Your task to perform on an android device: remove spam from my inbox in the gmail app Image 0: 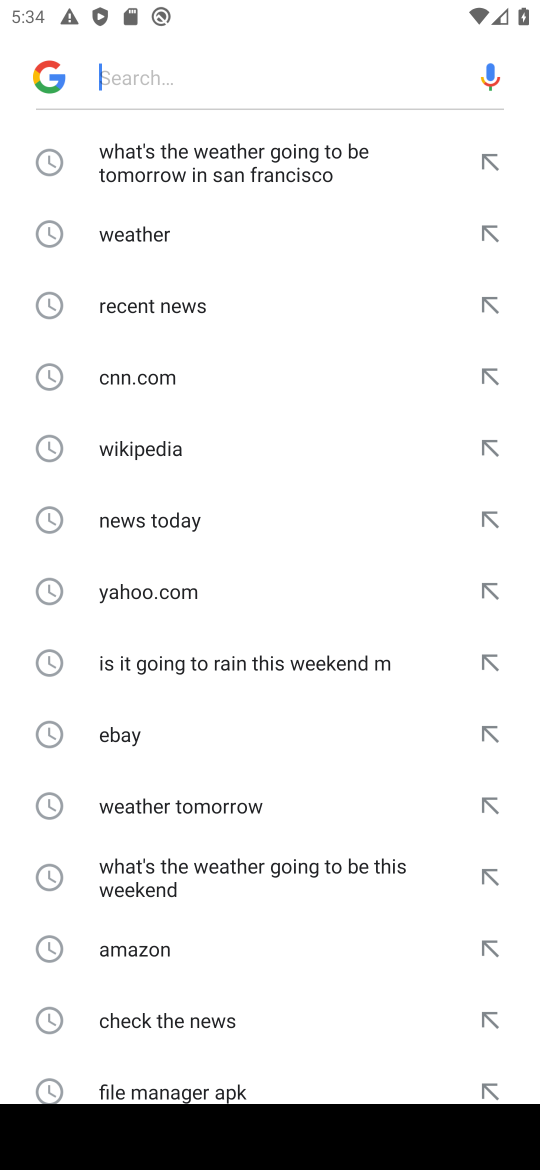
Step 0: press home button
Your task to perform on an android device: remove spam from my inbox in the gmail app Image 1: 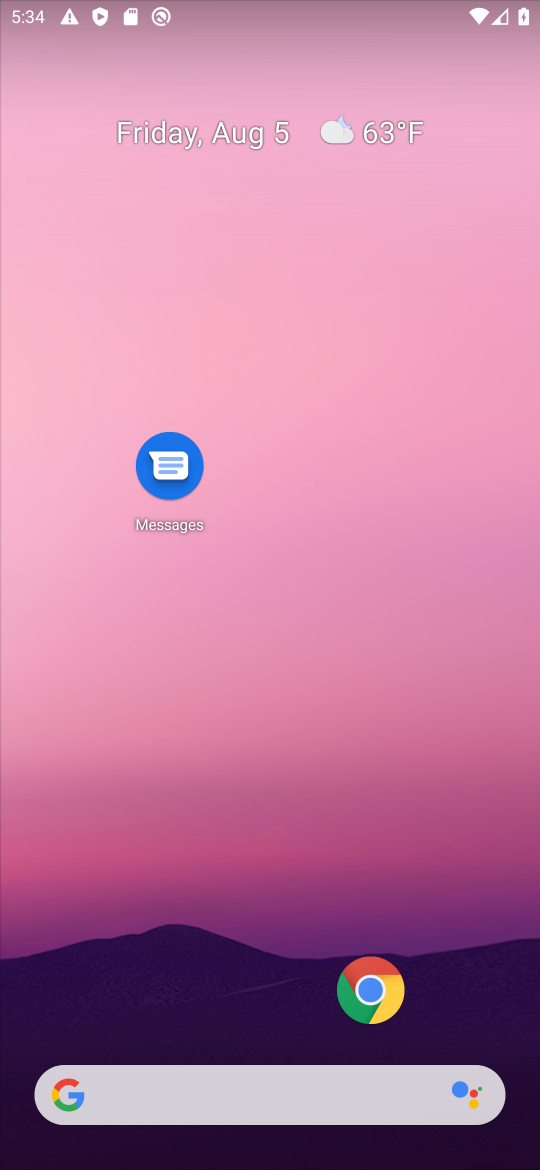
Step 1: drag from (210, 822) to (232, 560)
Your task to perform on an android device: remove spam from my inbox in the gmail app Image 2: 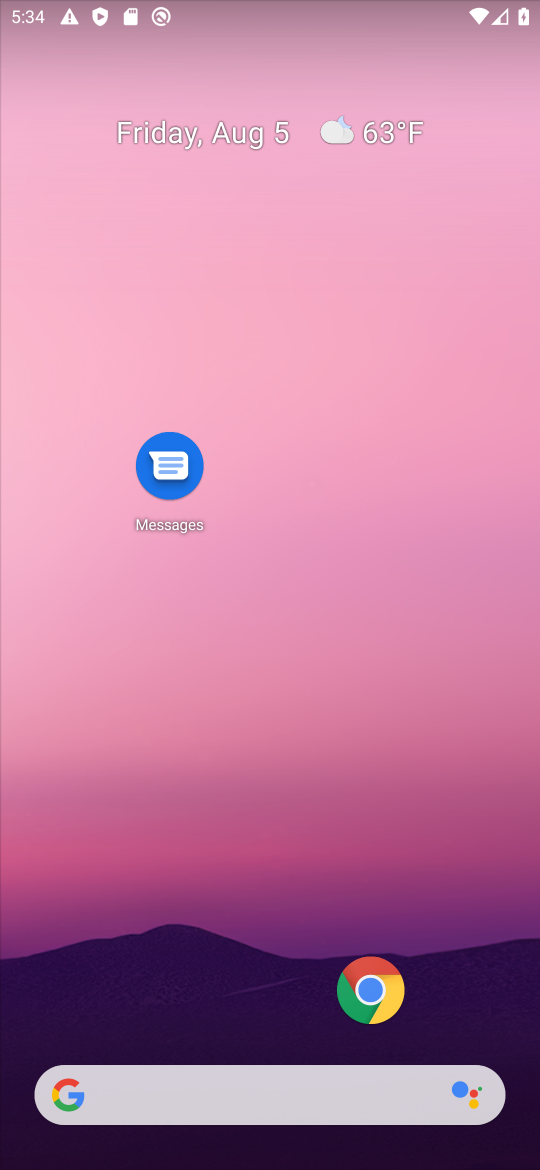
Step 2: drag from (269, 1060) to (254, 307)
Your task to perform on an android device: remove spam from my inbox in the gmail app Image 3: 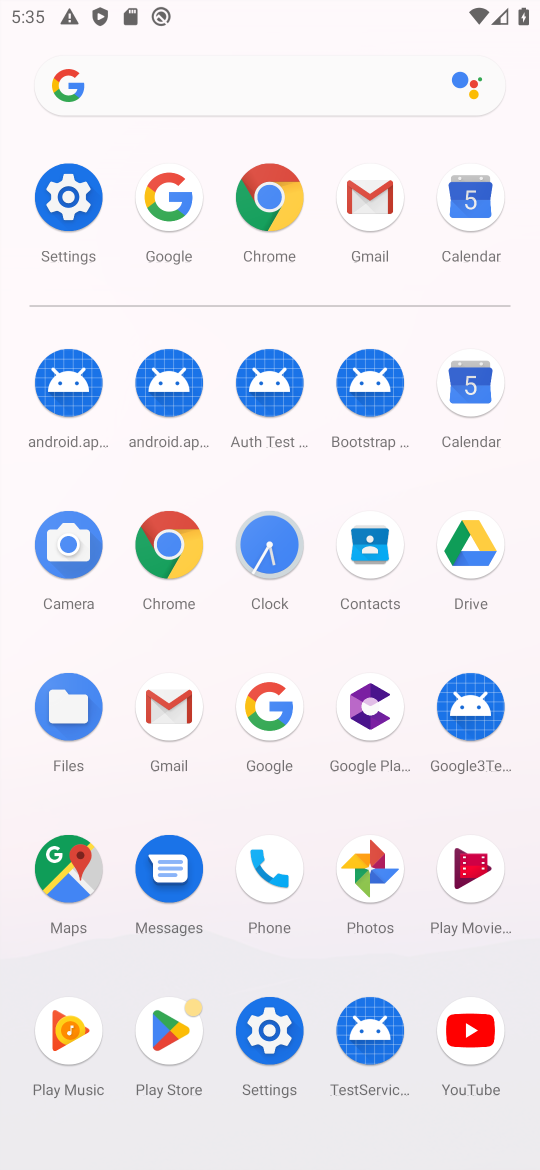
Step 3: click (371, 217)
Your task to perform on an android device: remove spam from my inbox in the gmail app Image 4: 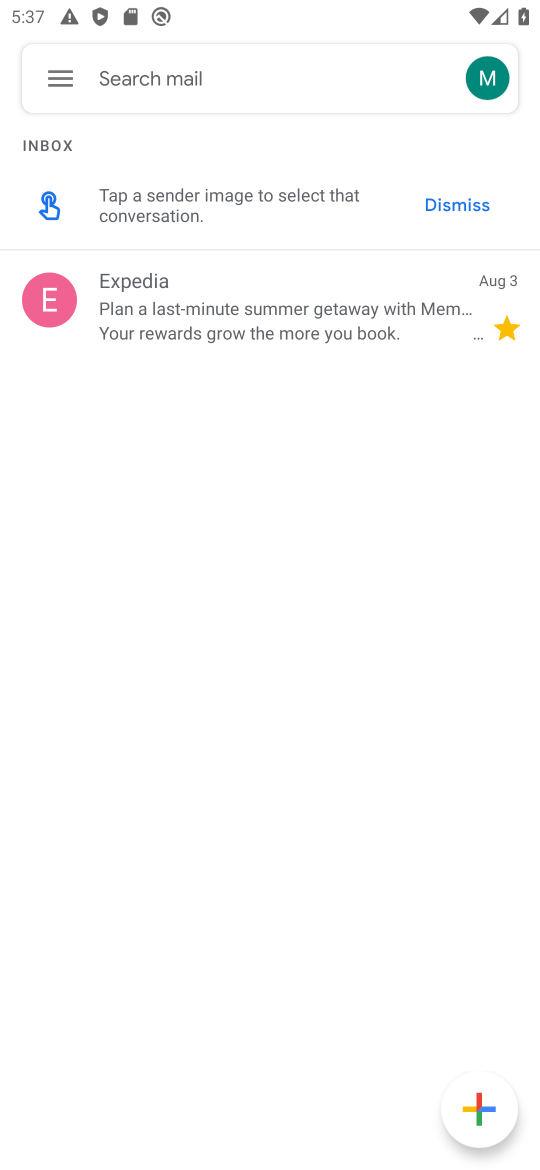
Step 4: click (55, 81)
Your task to perform on an android device: remove spam from my inbox in the gmail app Image 5: 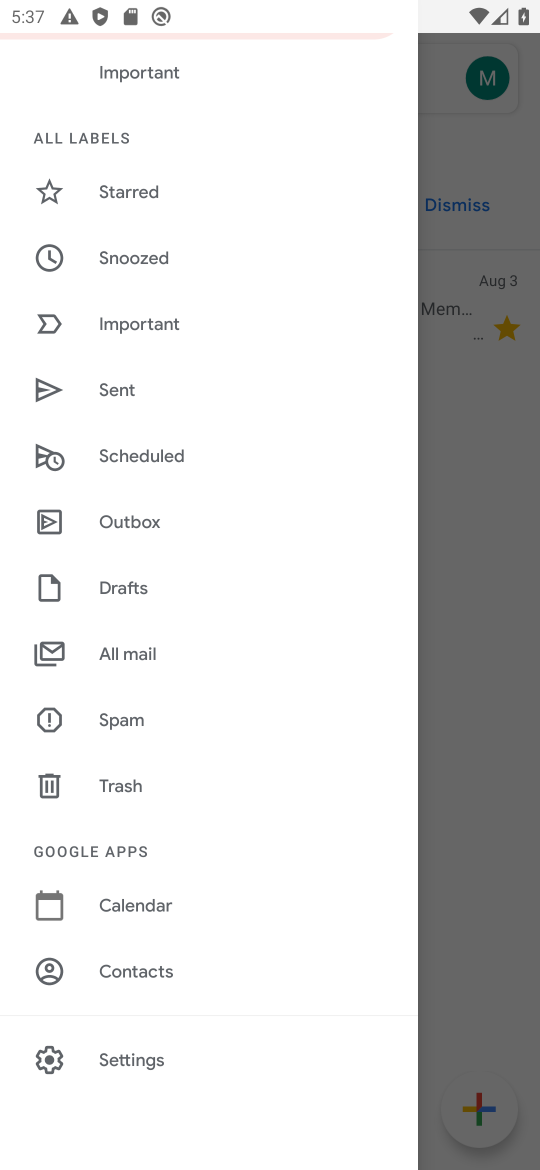
Step 5: click (121, 722)
Your task to perform on an android device: remove spam from my inbox in the gmail app Image 6: 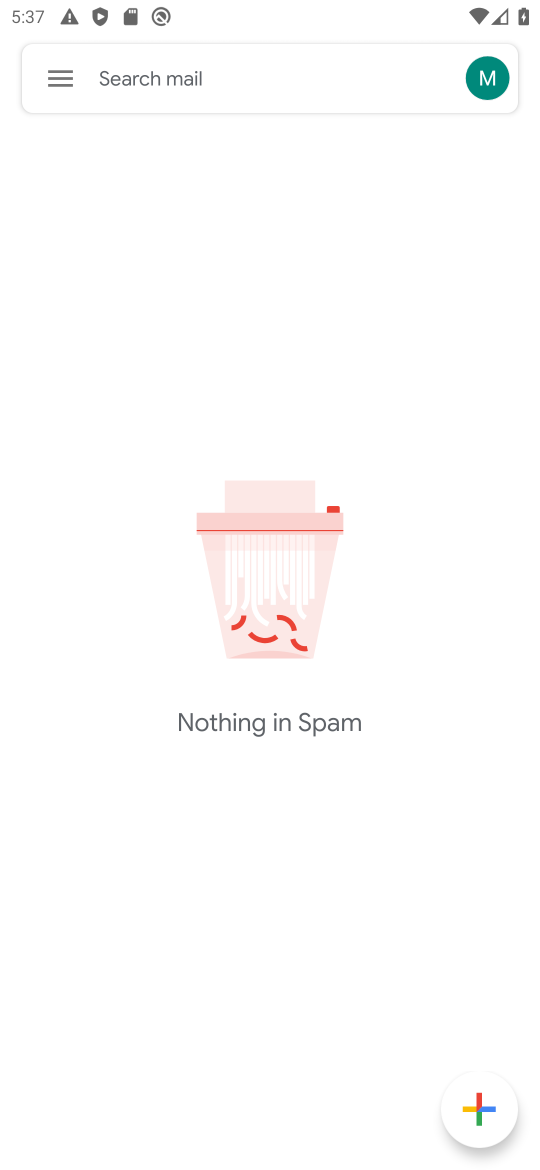
Step 6: task complete